Your task to perform on an android device: Do I have any events this weekend? Image 0: 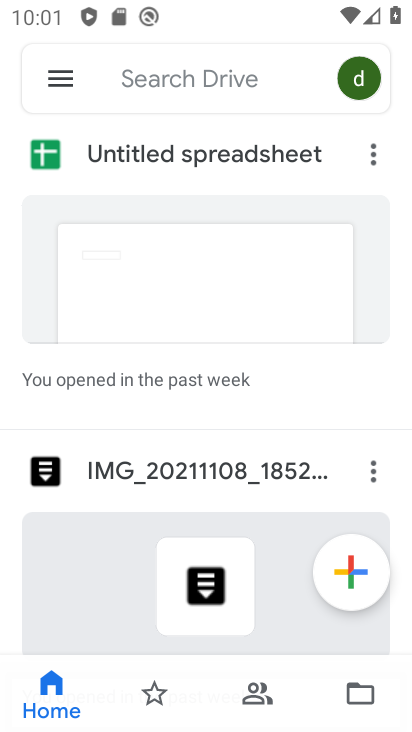
Step 0: press home button
Your task to perform on an android device: Do I have any events this weekend? Image 1: 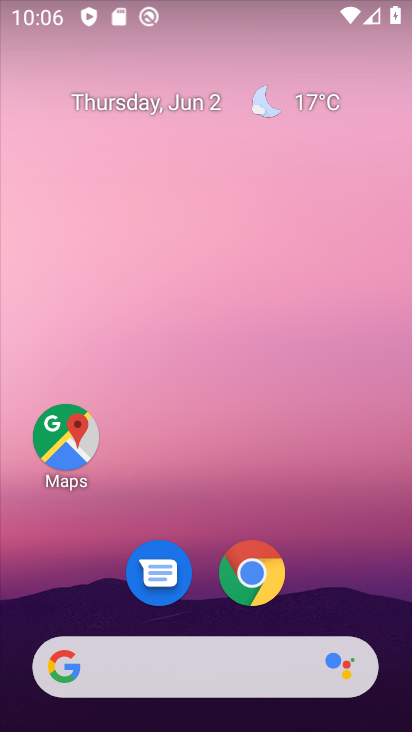
Step 1: task complete